Your task to perform on an android device: Open Google Maps Image 0: 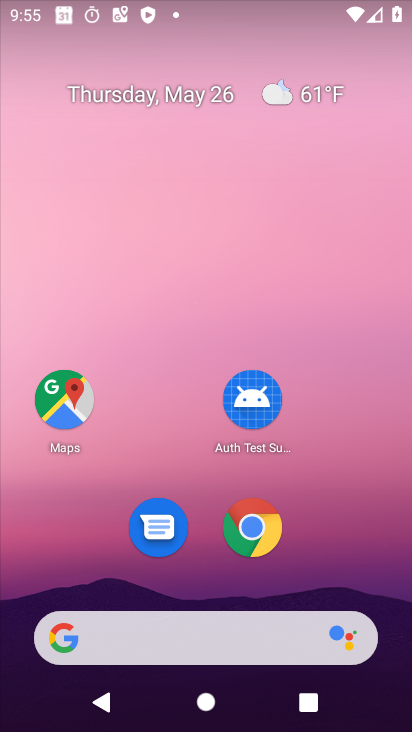
Step 0: drag from (353, 562) to (327, 0)
Your task to perform on an android device: Open Google Maps Image 1: 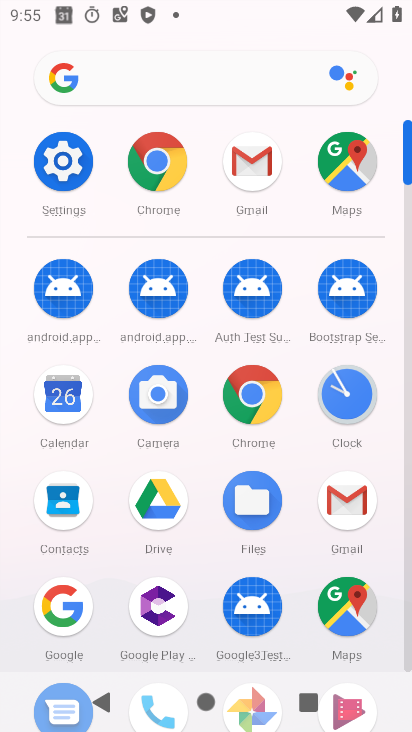
Step 1: click (347, 163)
Your task to perform on an android device: Open Google Maps Image 2: 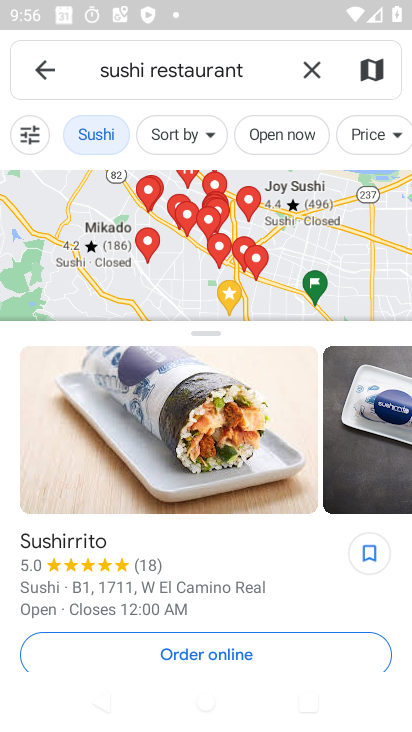
Step 2: task complete